Your task to perform on an android device: Go to Maps Image 0: 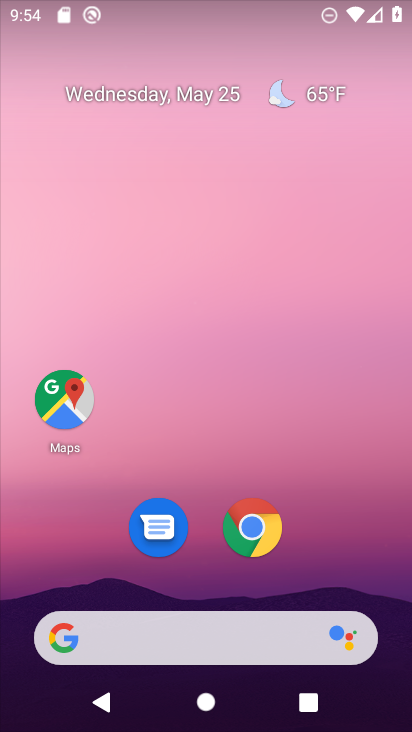
Step 0: click (64, 400)
Your task to perform on an android device: Go to Maps Image 1: 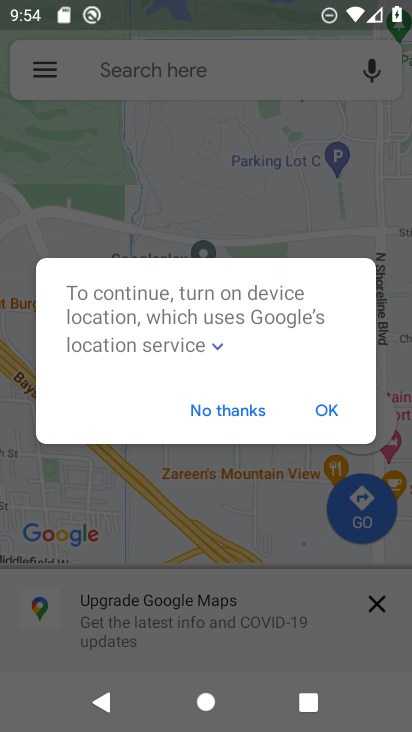
Step 1: click (215, 411)
Your task to perform on an android device: Go to Maps Image 2: 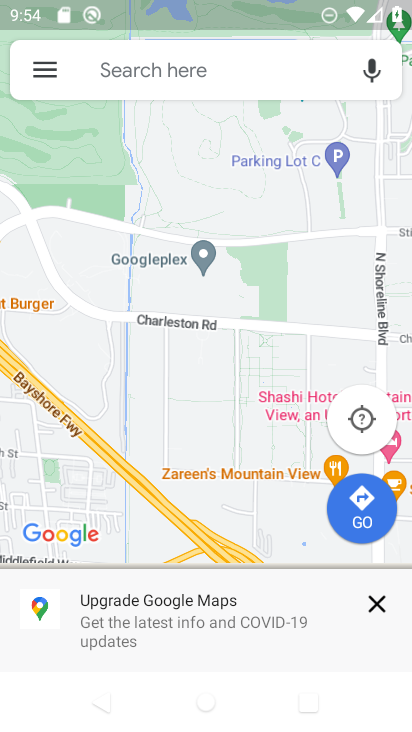
Step 2: task complete